Your task to perform on an android device: turn off airplane mode Image 0: 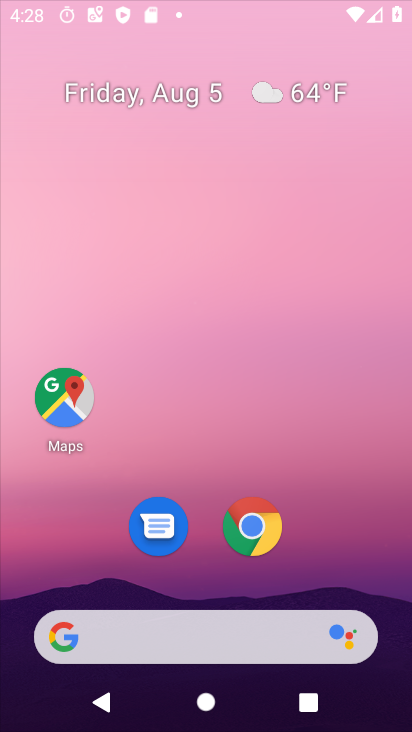
Step 0: press home button
Your task to perform on an android device: turn off airplane mode Image 1: 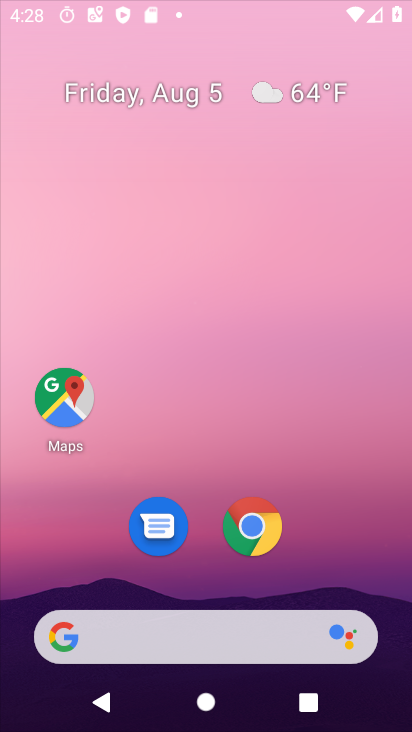
Step 1: task complete